Your task to perform on an android device: toggle pop-ups in chrome Image 0: 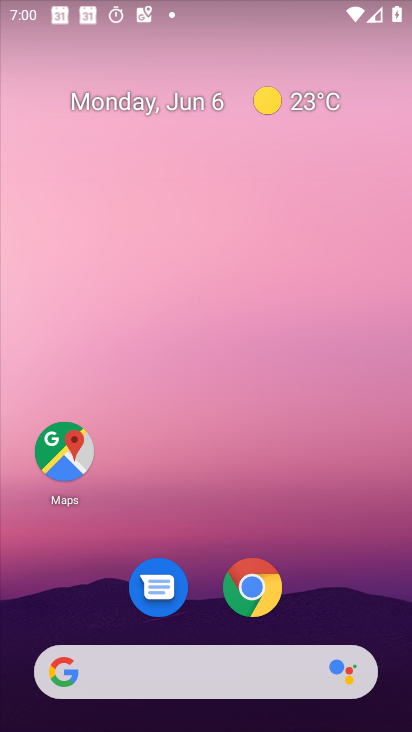
Step 0: drag from (389, 645) to (250, 45)
Your task to perform on an android device: toggle pop-ups in chrome Image 1: 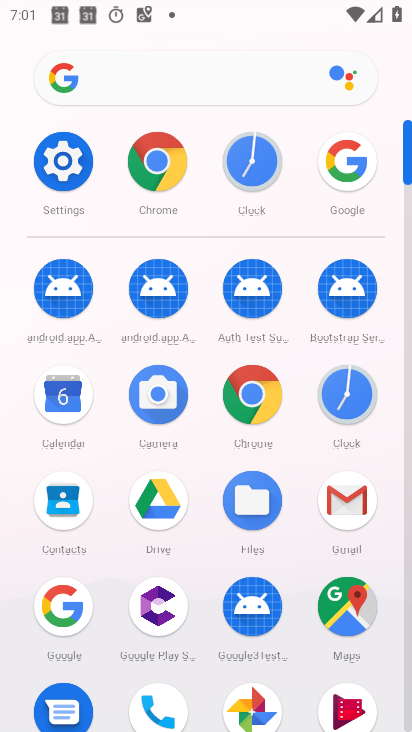
Step 1: click (150, 158)
Your task to perform on an android device: toggle pop-ups in chrome Image 2: 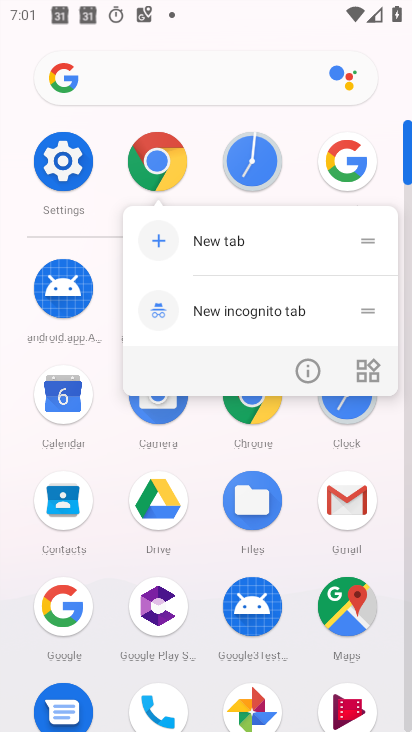
Step 2: click (150, 158)
Your task to perform on an android device: toggle pop-ups in chrome Image 3: 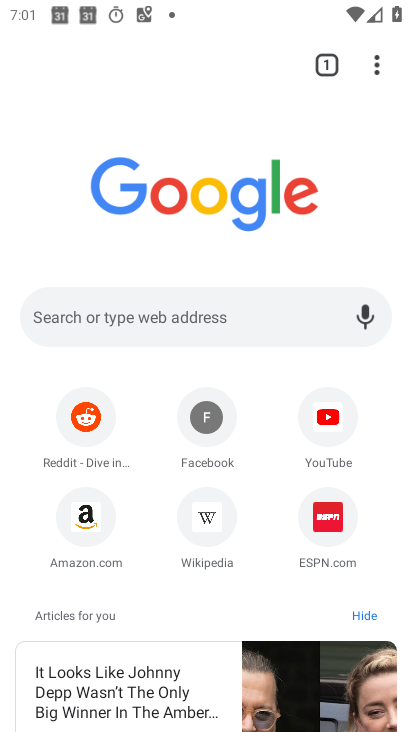
Step 3: click (380, 57)
Your task to perform on an android device: toggle pop-ups in chrome Image 4: 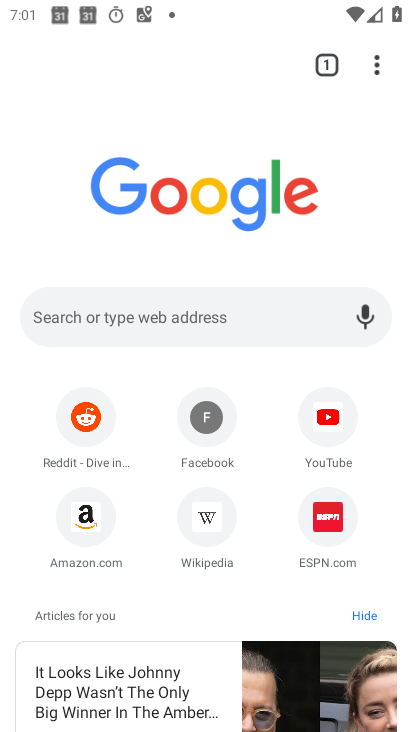
Step 4: click (371, 64)
Your task to perform on an android device: toggle pop-ups in chrome Image 5: 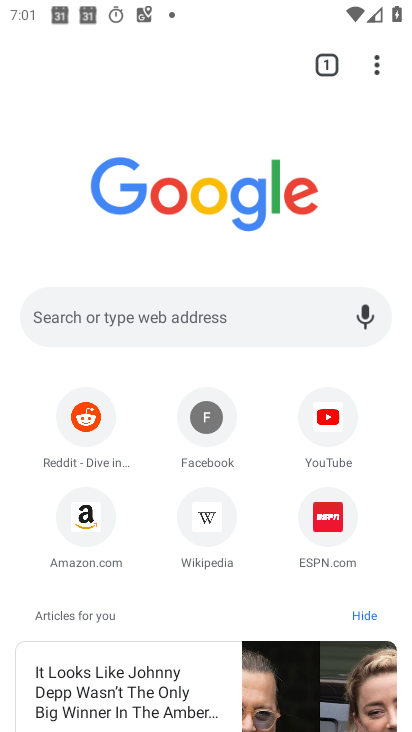
Step 5: click (379, 56)
Your task to perform on an android device: toggle pop-ups in chrome Image 6: 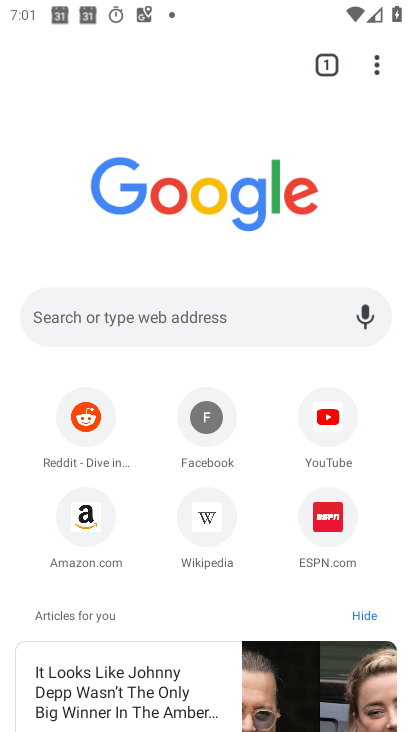
Step 6: click (374, 58)
Your task to perform on an android device: toggle pop-ups in chrome Image 7: 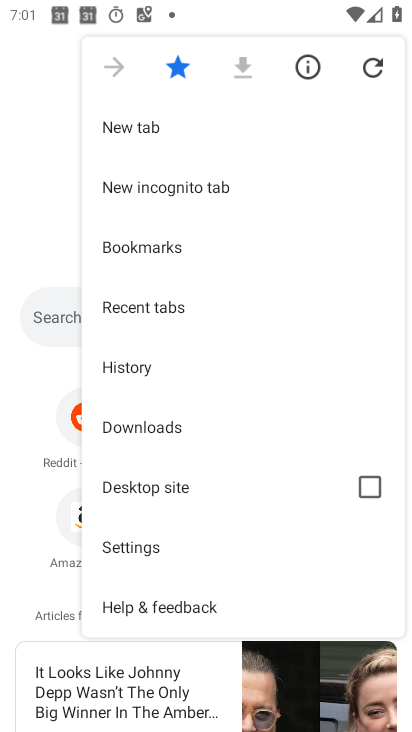
Step 7: click (155, 542)
Your task to perform on an android device: toggle pop-ups in chrome Image 8: 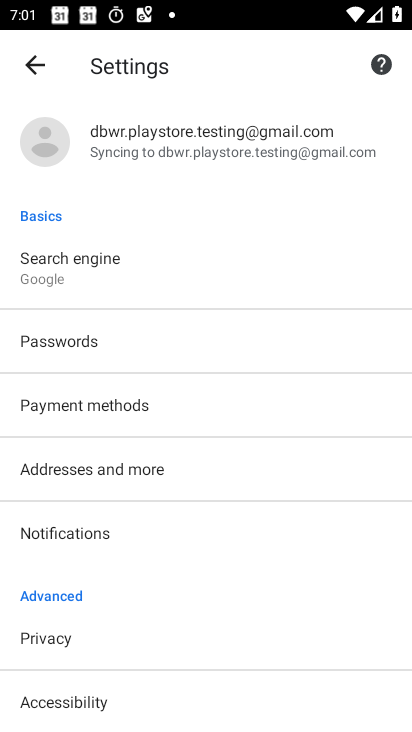
Step 8: drag from (80, 626) to (97, 171)
Your task to perform on an android device: toggle pop-ups in chrome Image 9: 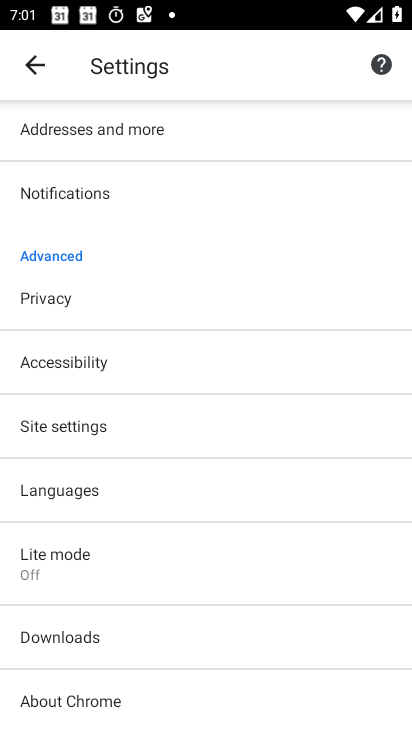
Step 9: click (101, 432)
Your task to perform on an android device: toggle pop-ups in chrome Image 10: 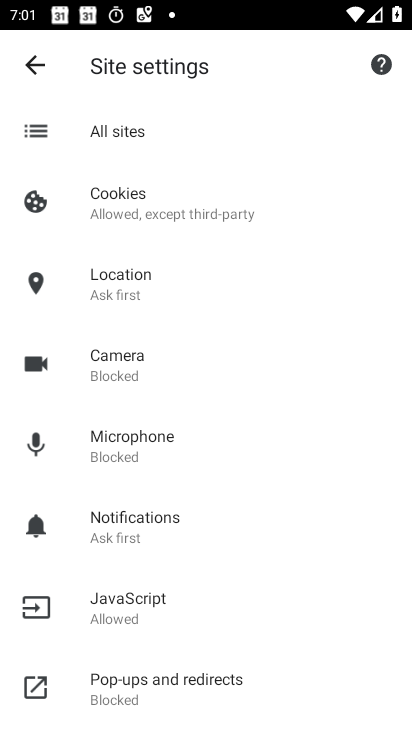
Step 10: click (167, 681)
Your task to perform on an android device: toggle pop-ups in chrome Image 11: 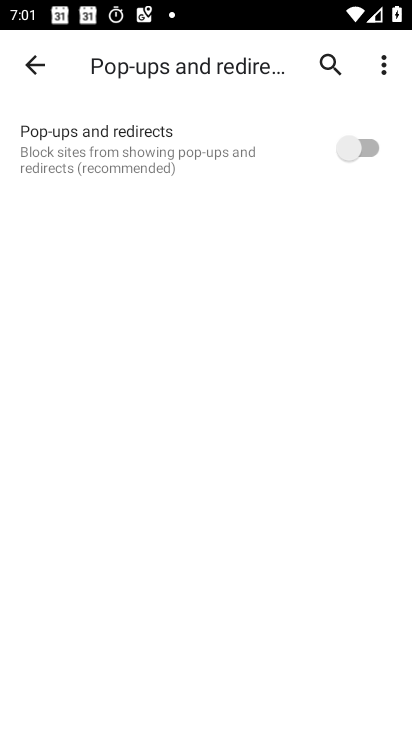
Step 11: click (335, 140)
Your task to perform on an android device: toggle pop-ups in chrome Image 12: 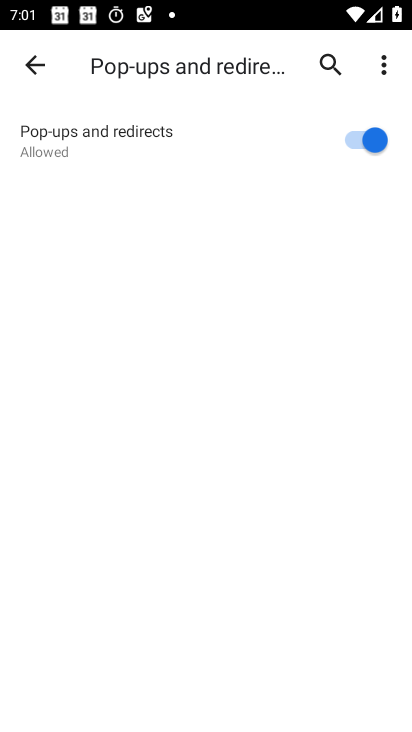
Step 12: task complete